Your task to perform on an android device: change the clock display to analog Image 0: 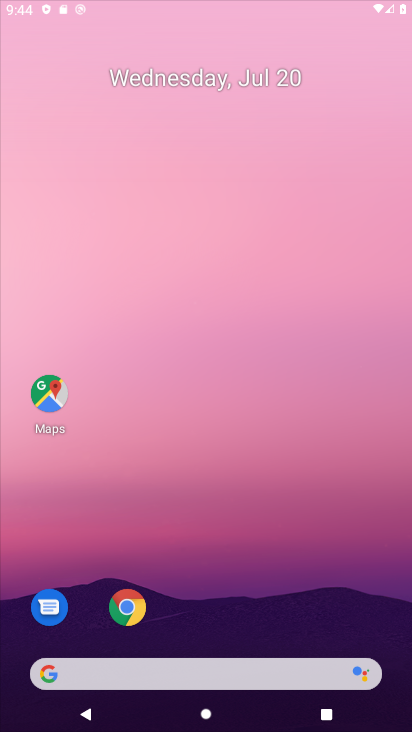
Step 0: drag from (229, 639) to (165, 262)
Your task to perform on an android device: change the clock display to analog Image 1: 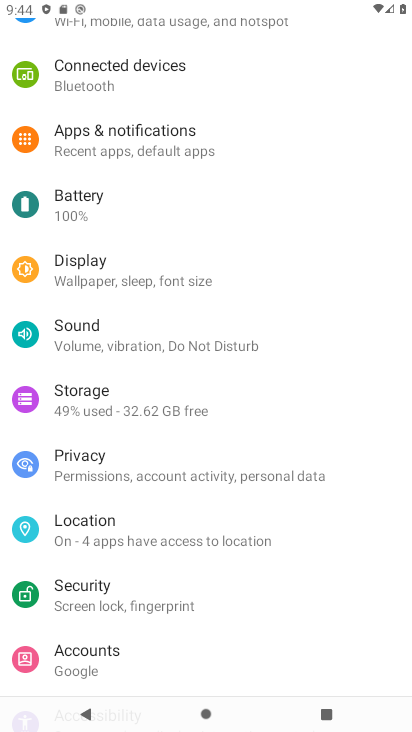
Step 1: press back button
Your task to perform on an android device: change the clock display to analog Image 2: 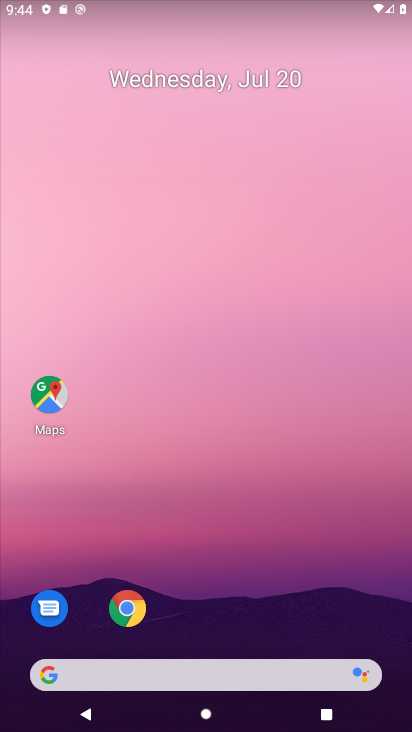
Step 2: drag from (212, 645) to (252, 105)
Your task to perform on an android device: change the clock display to analog Image 3: 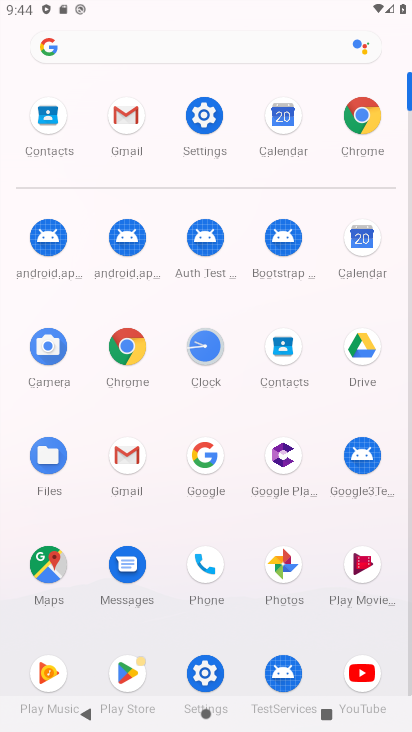
Step 3: click (197, 354)
Your task to perform on an android device: change the clock display to analog Image 4: 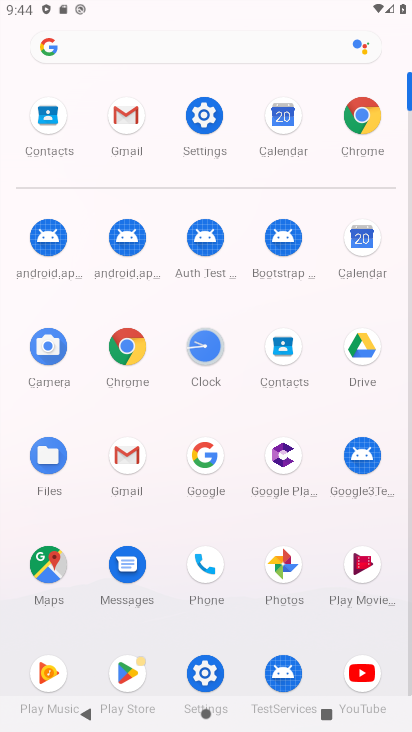
Step 4: click (202, 349)
Your task to perform on an android device: change the clock display to analog Image 5: 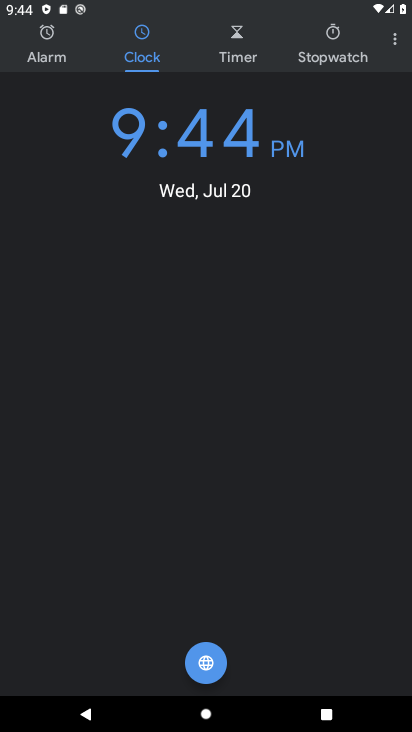
Step 5: click (396, 39)
Your task to perform on an android device: change the clock display to analog Image 6: 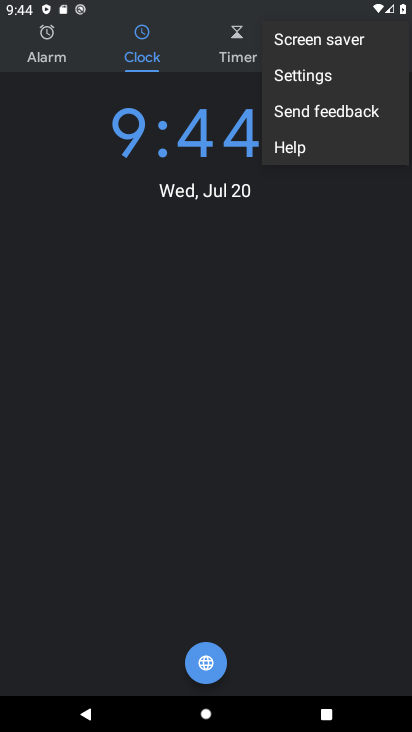
Step 6: click (310, 78)
Your task to perform on an android device: change the clock display to analog Image 7: 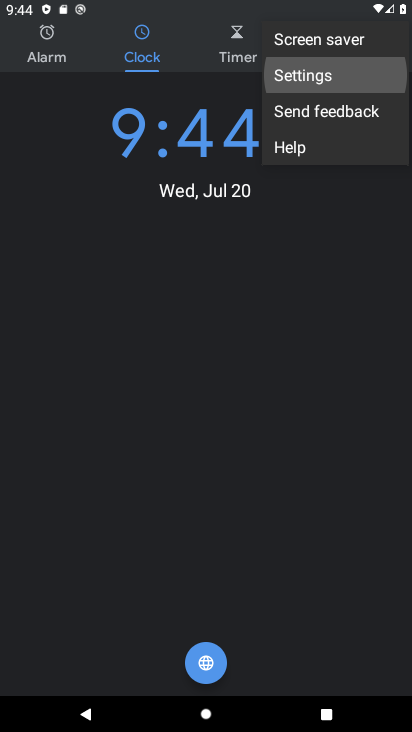
Step 7: click (310, 78)
Your task to perform on an android device: change the clock display to analog Image 8: 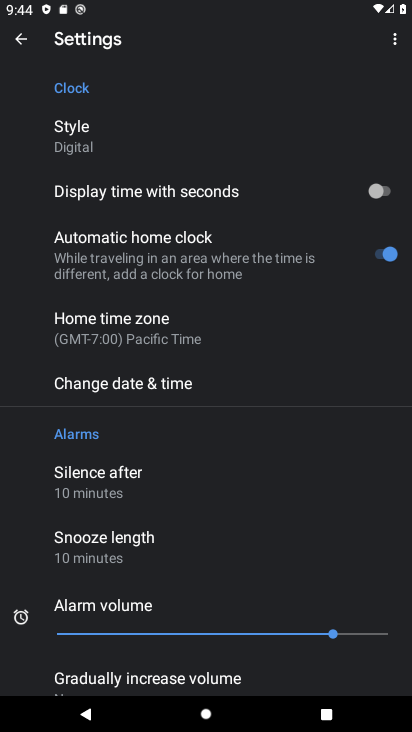
Step 8: click (76, 129)
Your task to perform on an android device: change the clock display to analog Image 9: 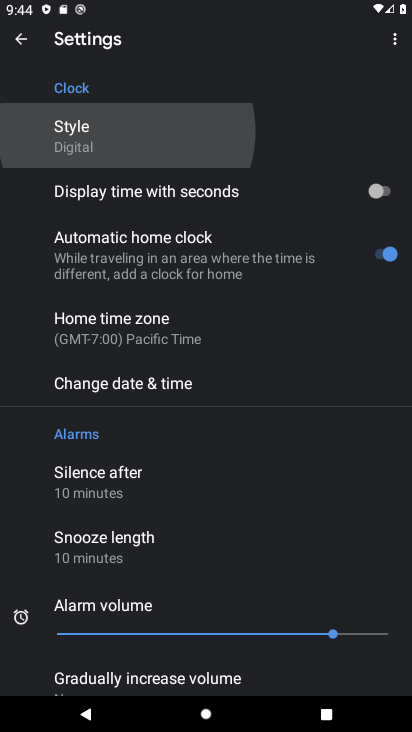
Step 9: click (78, 130)
Your task to perform on an android device: change the clock display to analog Image 10: 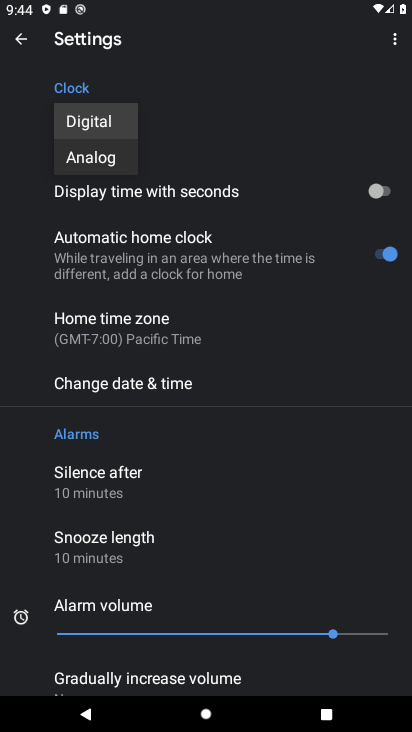
Step 10: click (92, 156)
Your task to perform on an android device: change the clock display to analog Image 11: 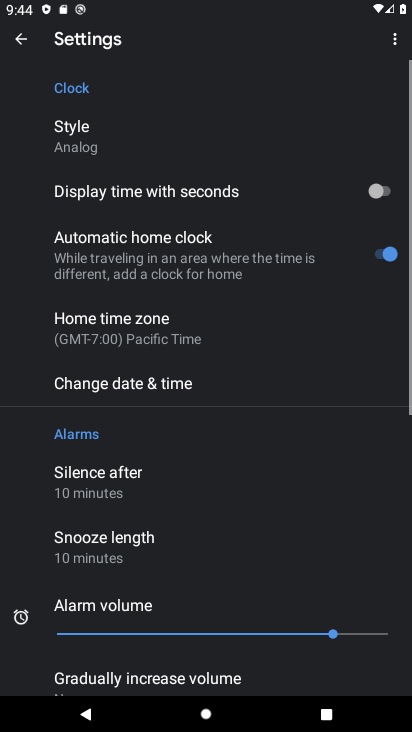
Step 11: task complete